Your task to perform on an android device: turn on notifications settings in the gmail app Image 0: 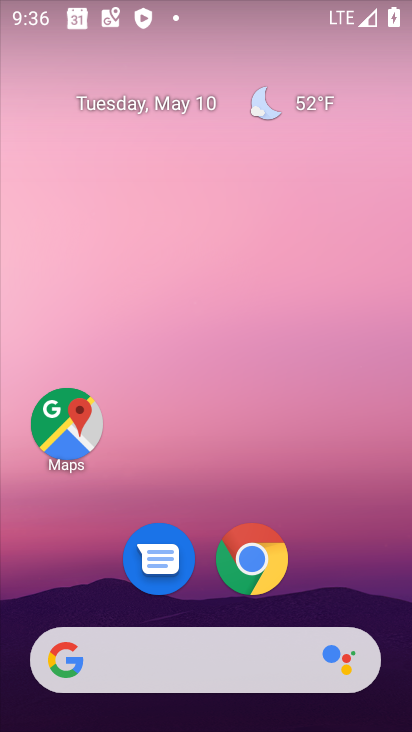
Step 0: drag from (342, 550) to (6, 74)
Your task to perform on an android device: turn on notifications settings in the gmail app Image 1: 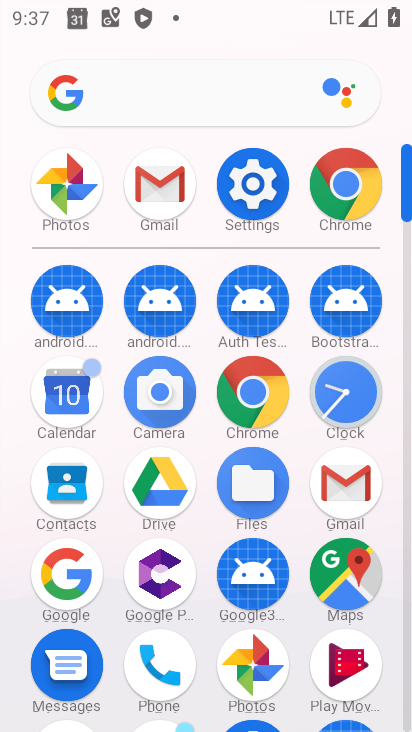
Step 1: click (162, 175)
Your task to perform on an android device: turn on notifications settings in the gmail app Image 2: 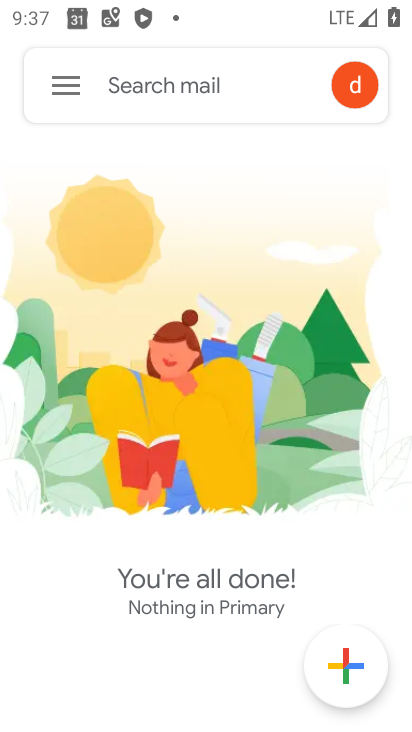
Step 2: click (58, 84)
Your task to perform on an android device: turn on notifications settings in the gmail app Image 3: 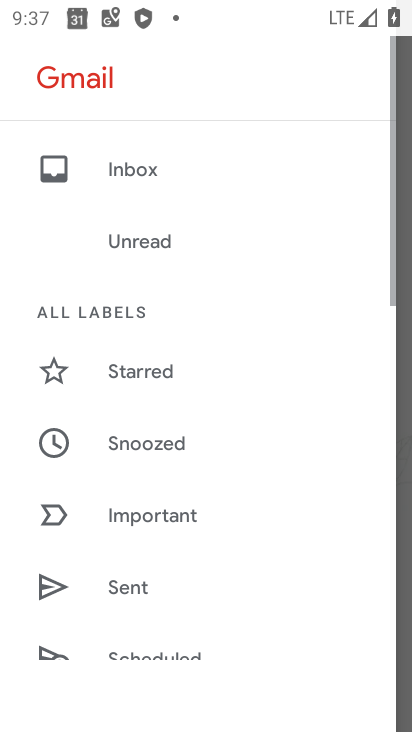
Step 3: drag from (196, 554) to (200, 95)
Your task to perform on an android device: turn on notifications settings in the gmail app Image 4: 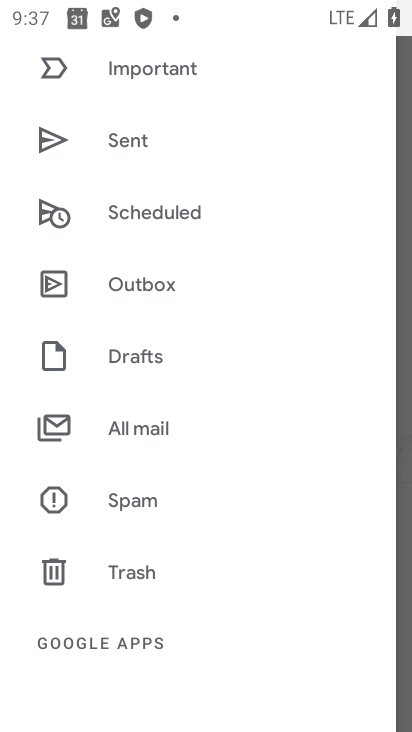
Step 4: drag from (203, 550) to (188, 68)
Your task to perform on an android device: turn on notifications settings in the gmail app Image 5: 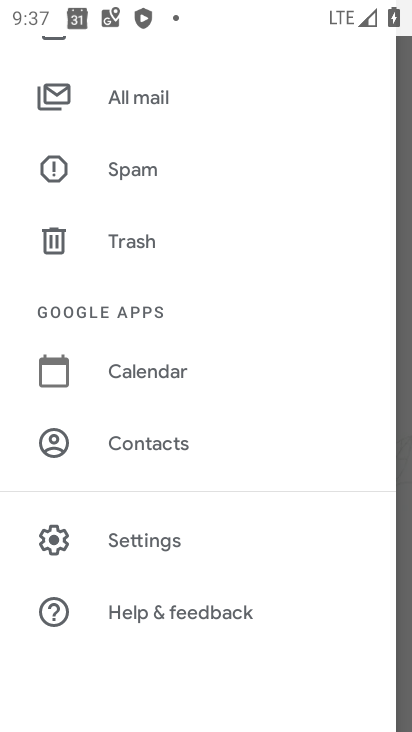
Step 5: click (122, 551)
Your task to perform on an android device: turn on notifications settings in the gmail app Image 6: 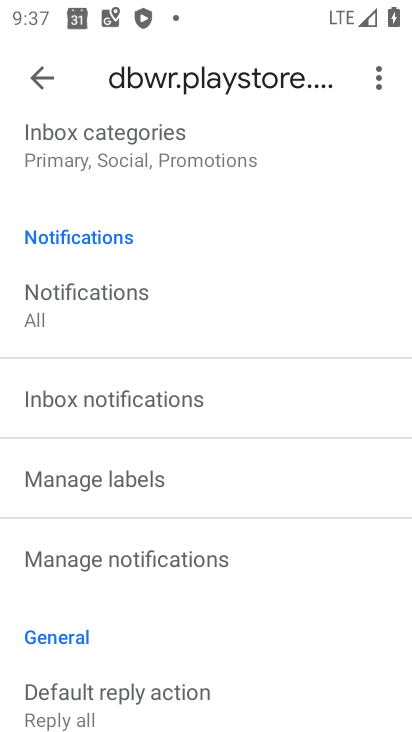
Step 6: click (130, 552)
Your task to perform on an android device: turn on notifications settings in the gmail app Image 7: 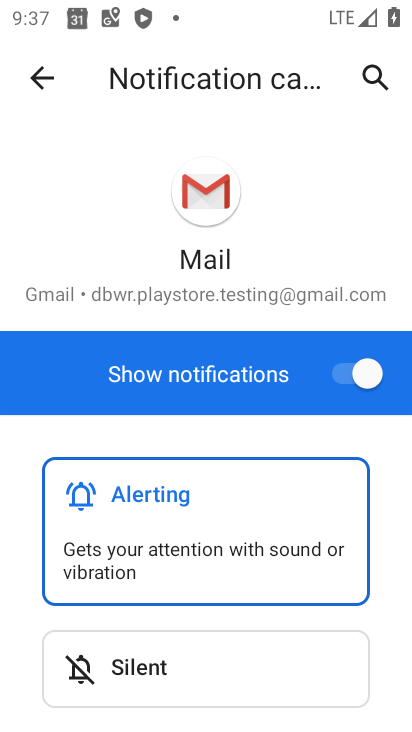
Step 7: task complete